Your task to perform on an android device: check storage Image 0: 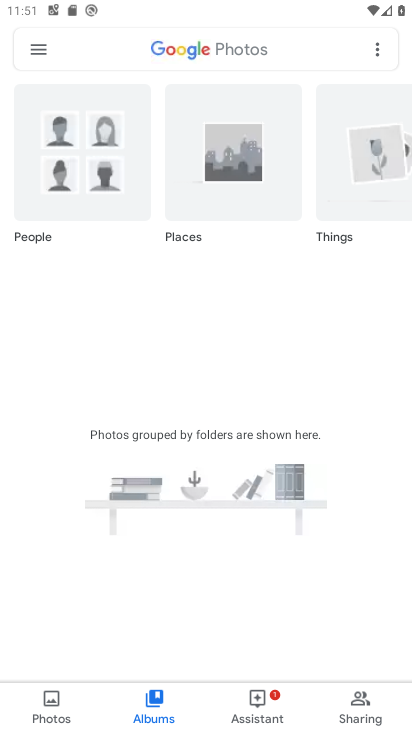
Step 0: press home button
Your task to perform on an android device: check storage Image 1: 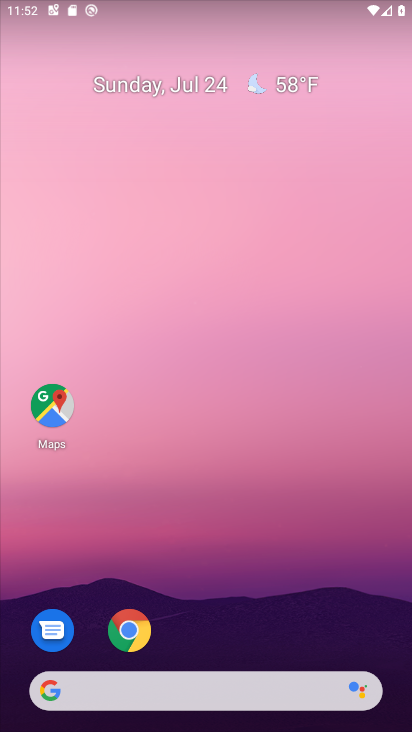
Step 1: click (146, 7)
Your task to perform on an android device: check storage Image 2: 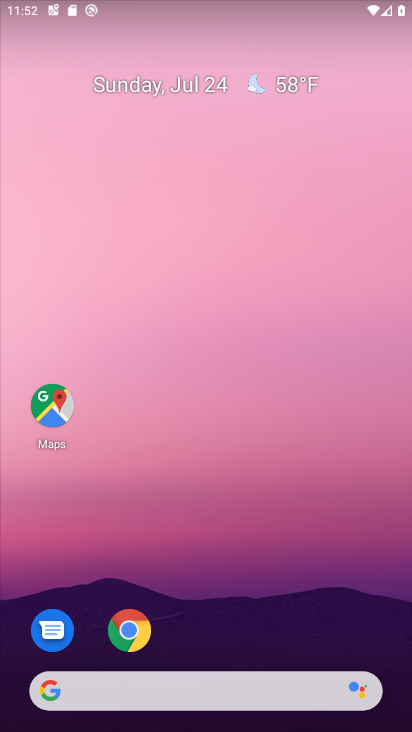
Step 2: drag from (214, 542) to (190, 33)
Your task to perform on an android device: check storage Image 3: 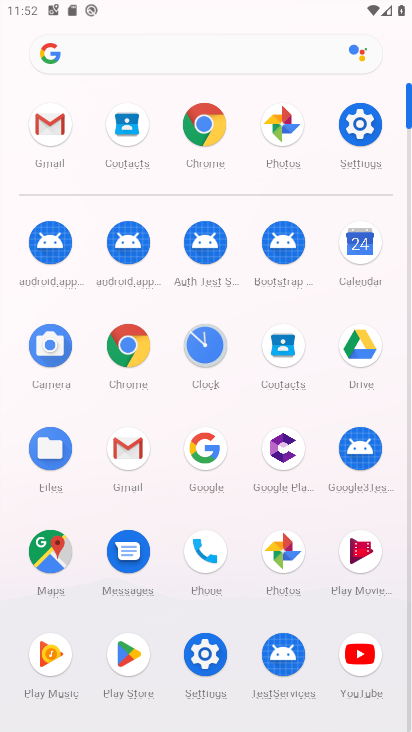
Step 3: click (359, 125)
Your task to perform on an android device: check storage Image 4: 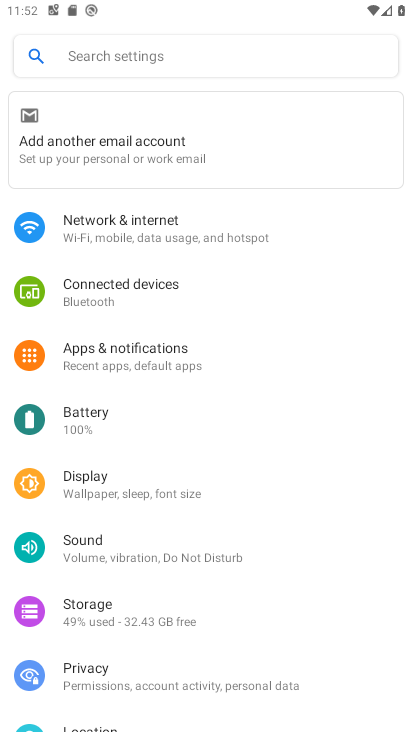
Step 4: click (76, 605)
Your task to perform on an android device: check storage Image 5: 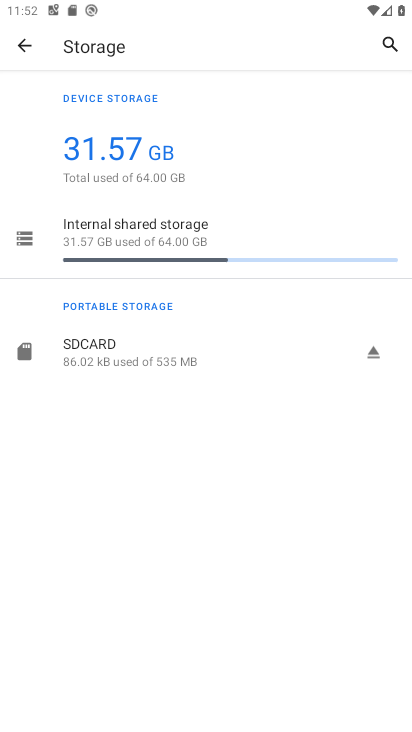
Step 5: task complete